Your task to perform on an android device: Open Wikipedia Image 0: 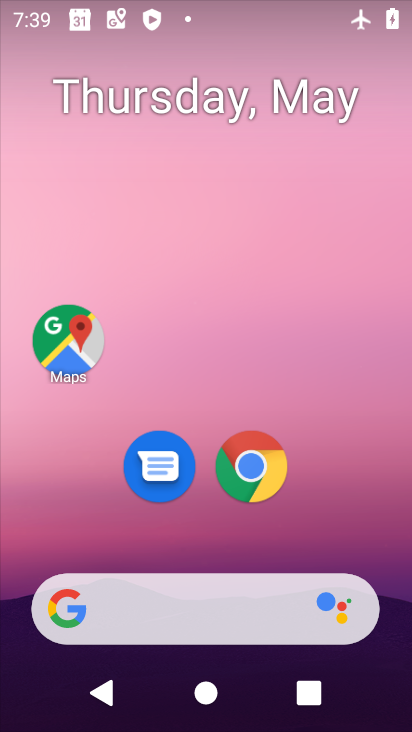
Step 0: click (252, 465)
Your task to perform on an android device: Open Wikipedia Image 1: 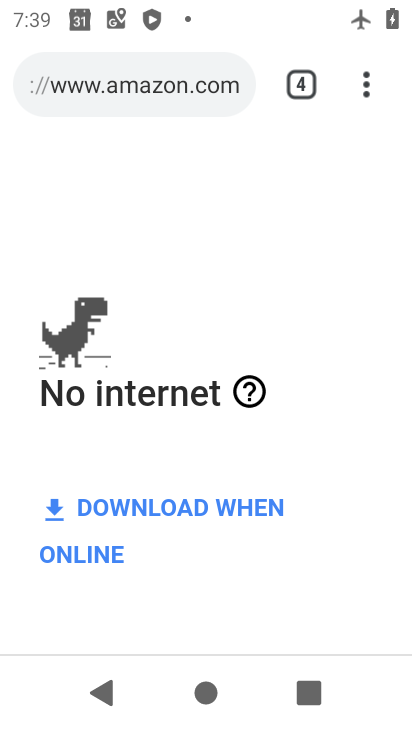
Step 1: task complete